Your task to perform on an android device: install app "Venmo" Image 0: 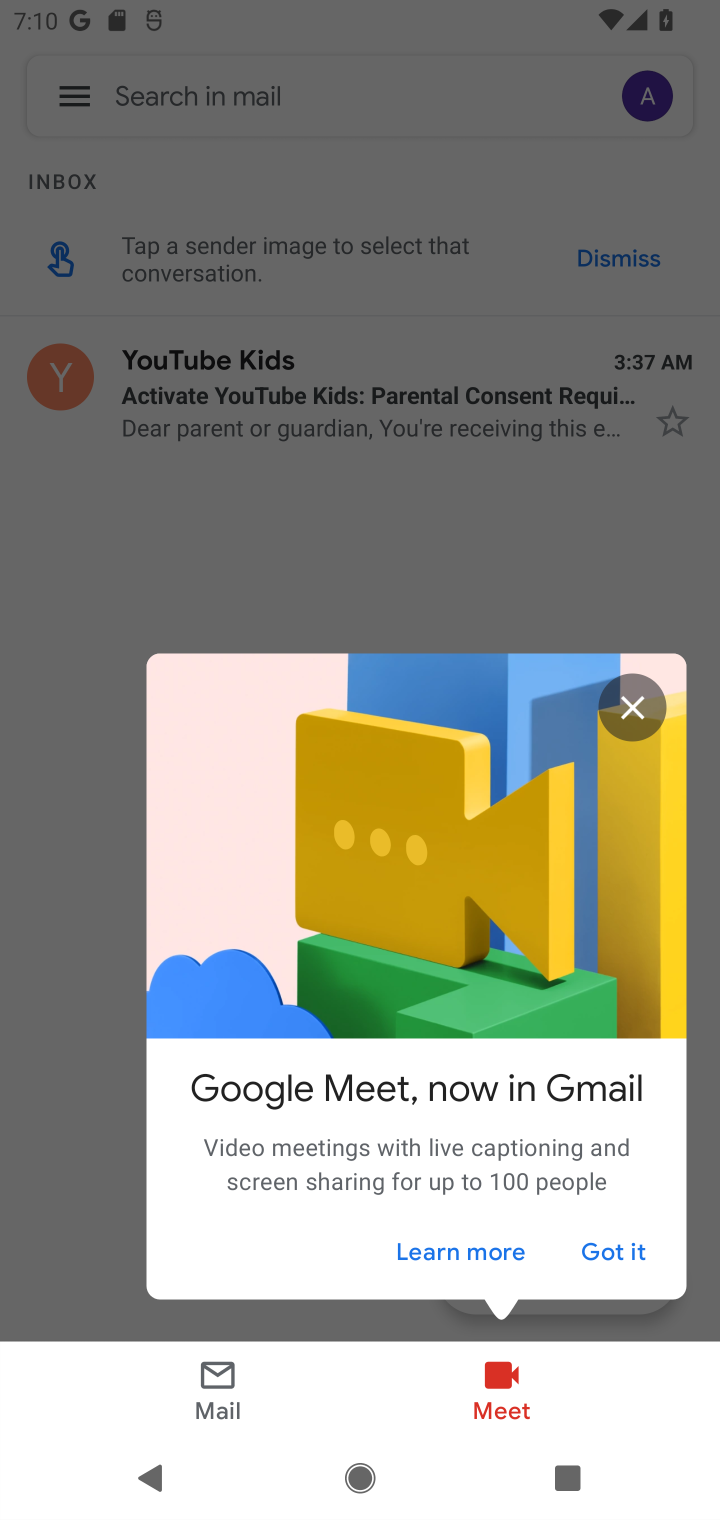
Step 0: press home button
Your task to perform on an android device: install app "Venmo" Image 1: 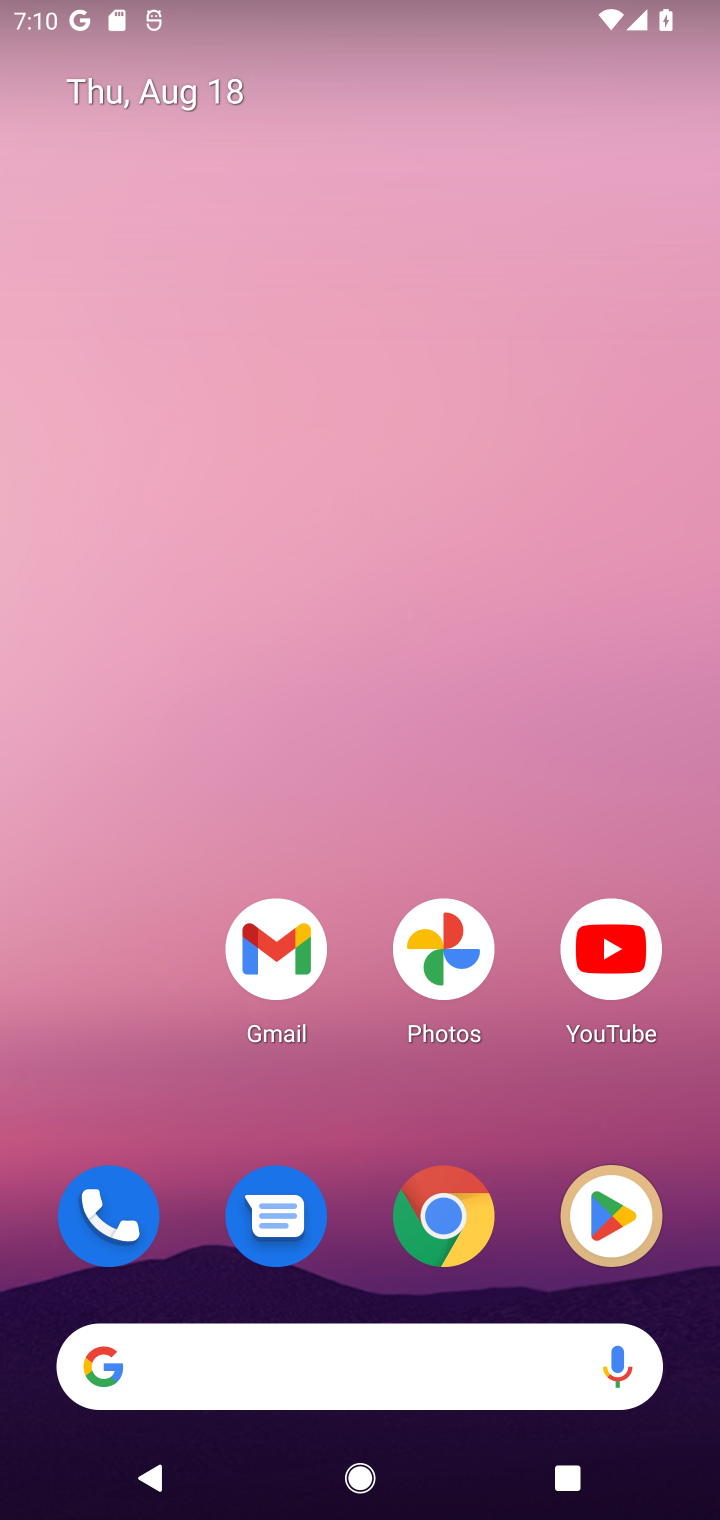
Step 1: click (607, 1214)
Your task to perform on an android device: install app "Venmo" Image 2: 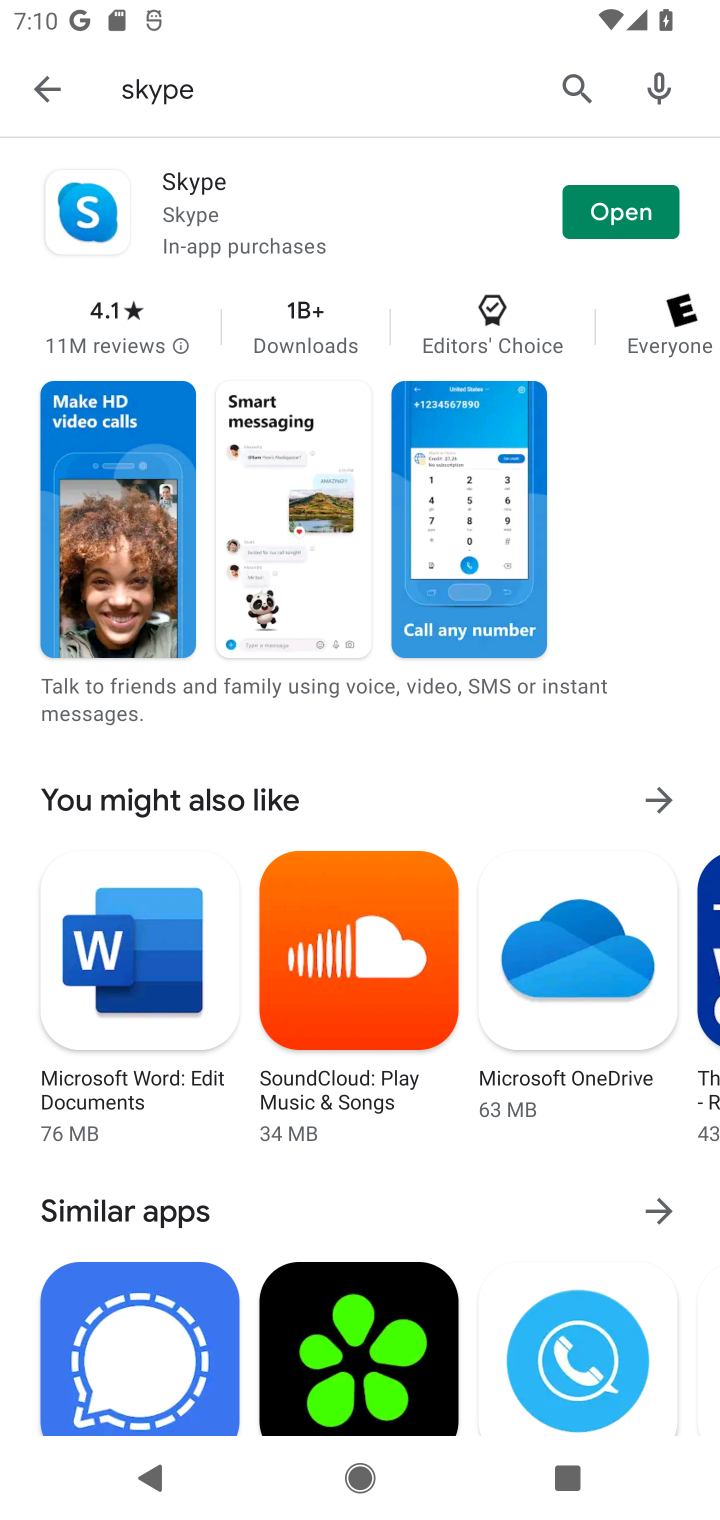
Step 2: click (563, 86)
Your task to perform on an android device: install app "Venmo" Image 3: 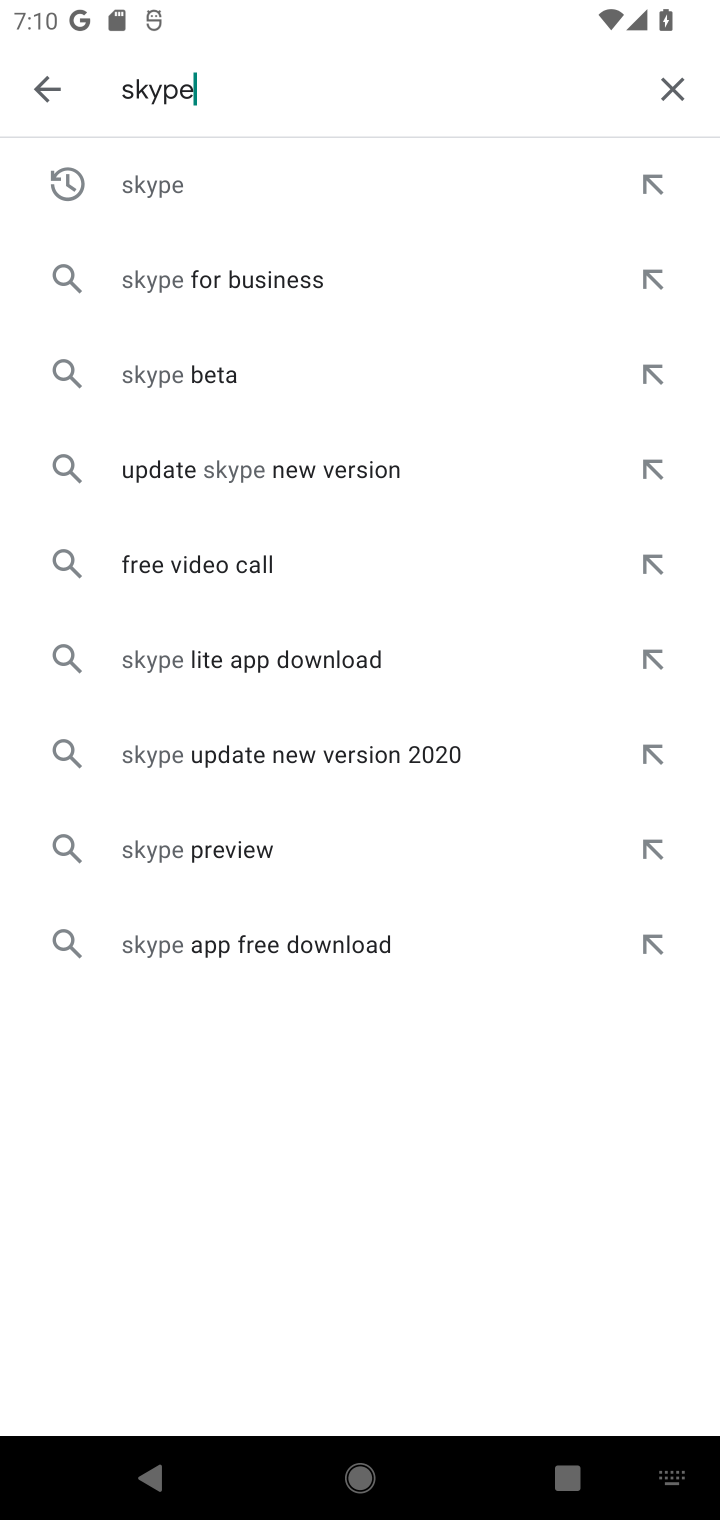
Step 3: click (664, 85)
Your task to perform on an android device: install app "Venmo" Image 4: 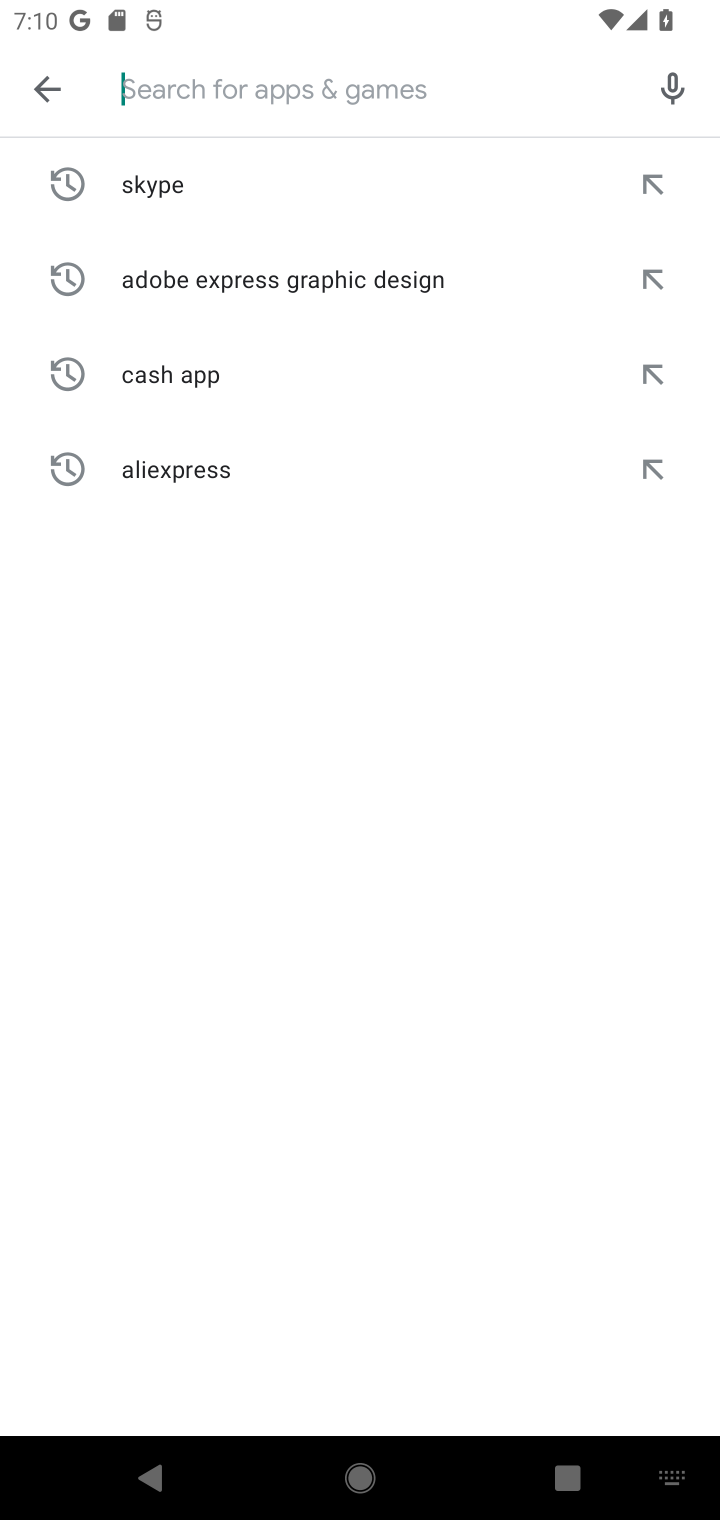
Step 4: type "Venmo"
Your task to perform on an android device: install app "Venmo" Image 5: 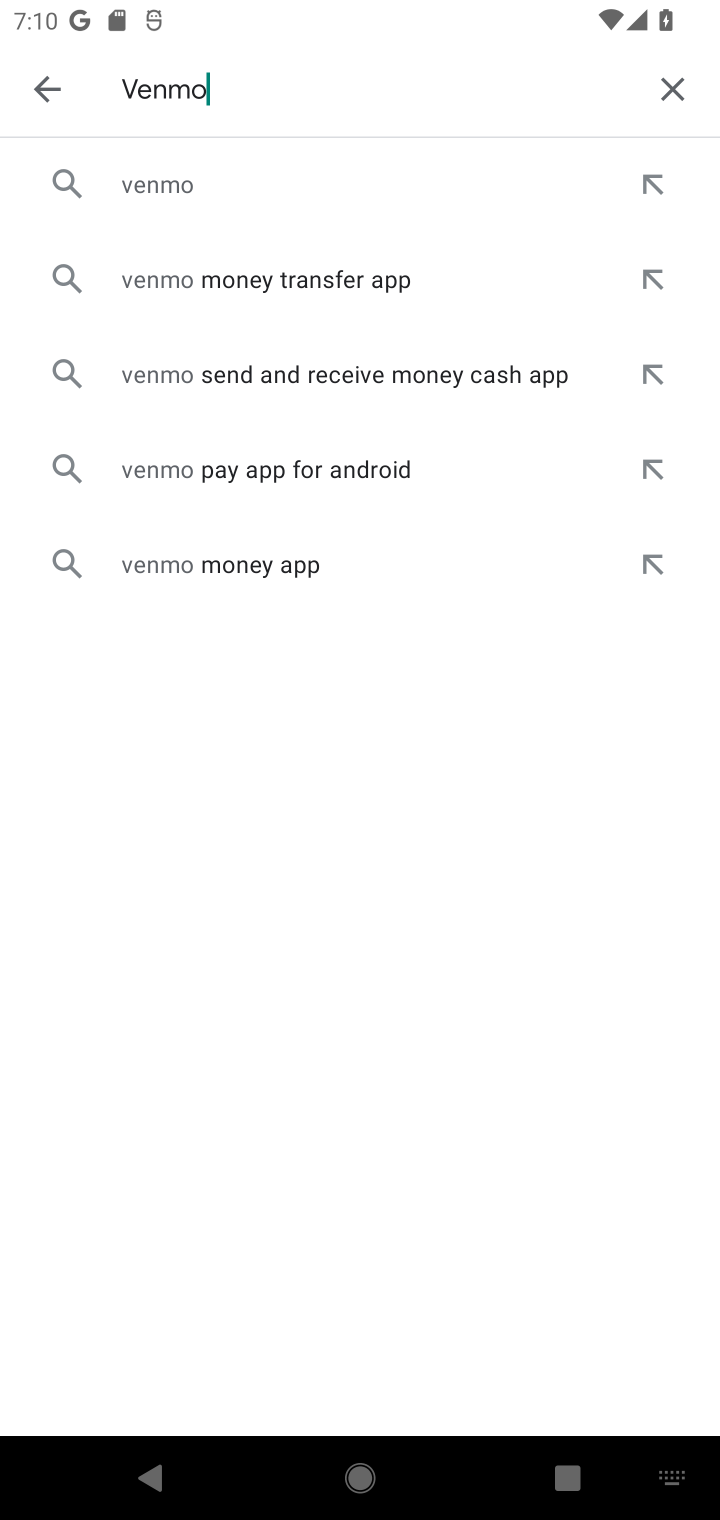
Step 5: click (141, 169)
Your task to perform on an android device: install app "Venmo" Image 6: 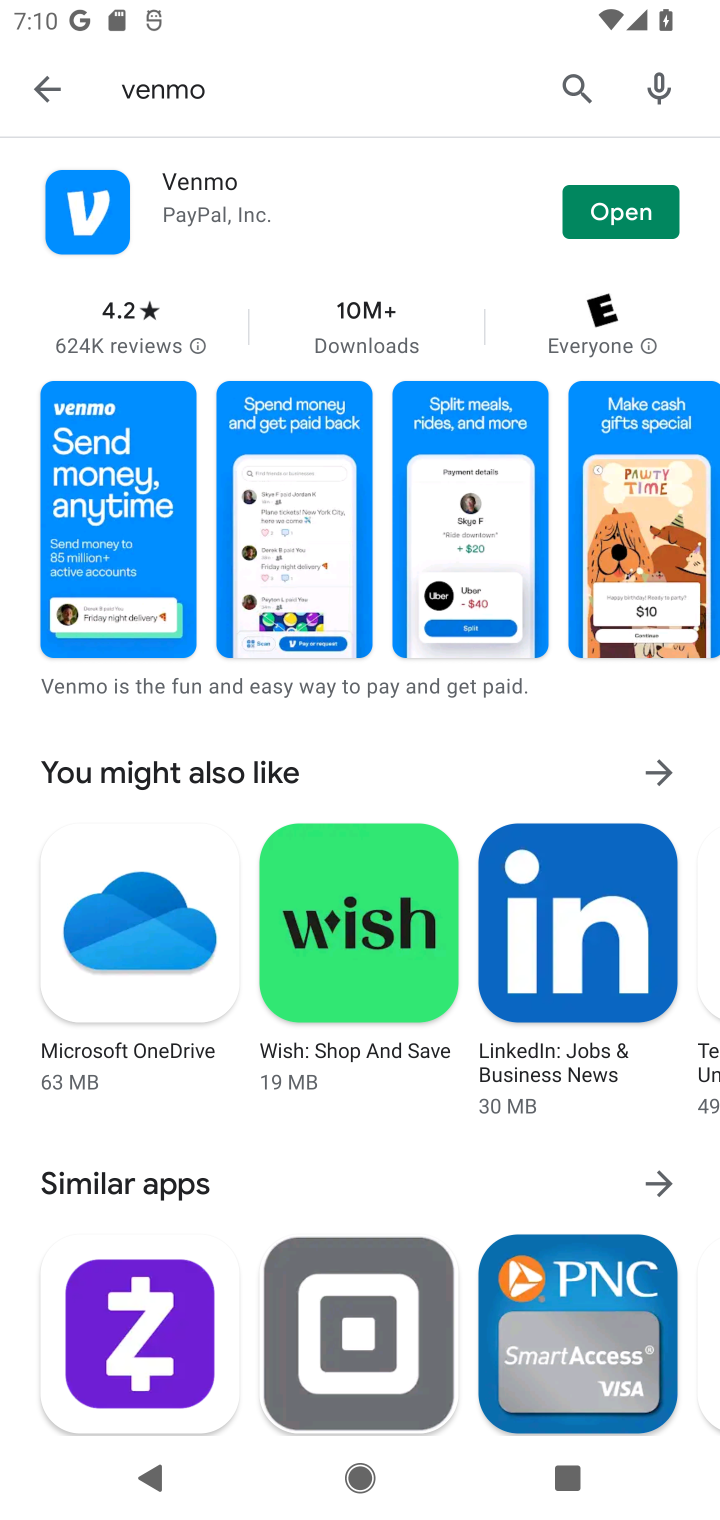
Step 6: task complete